Your task to perform on an android device: What's on the menu at Subway? Image 0: 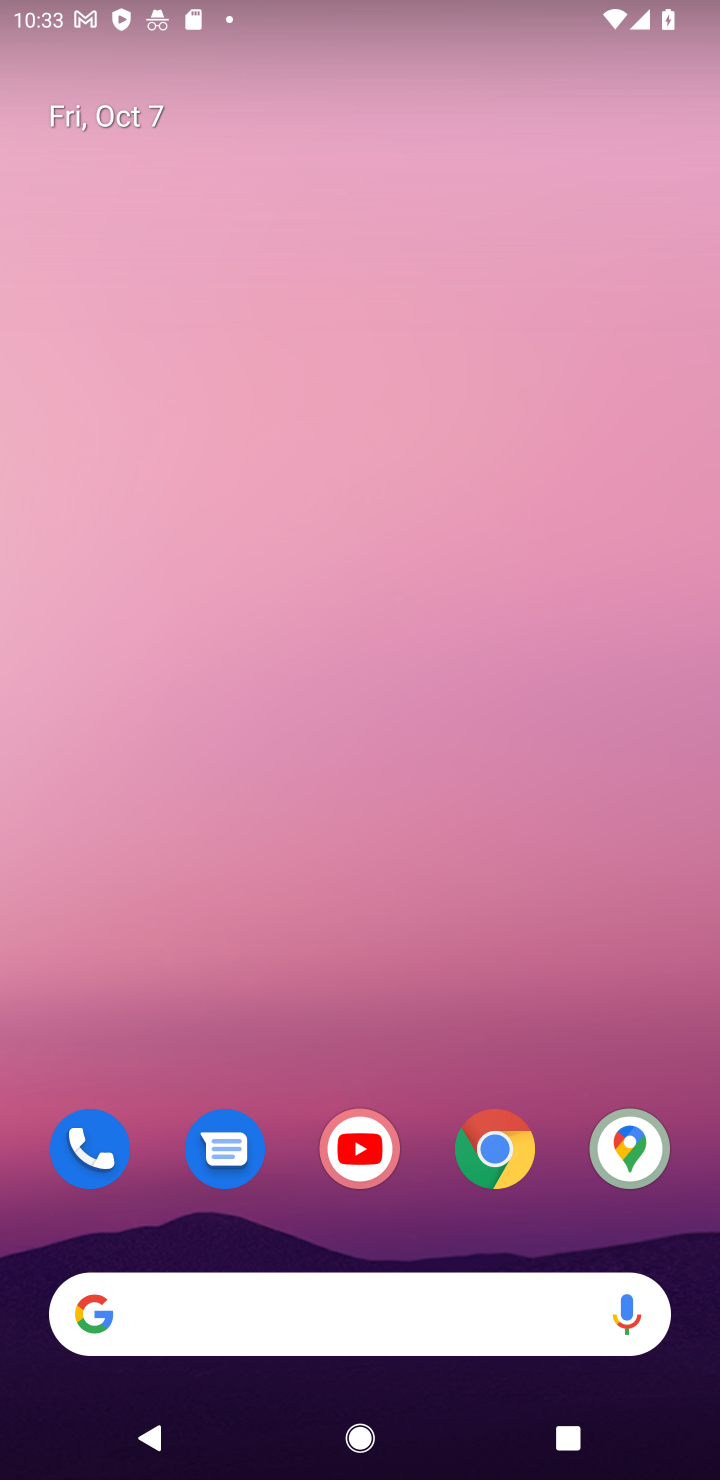
Step 0: click (404, 1293)
Your task to perform on an android device: What's on the menu at Subway? Image 1: 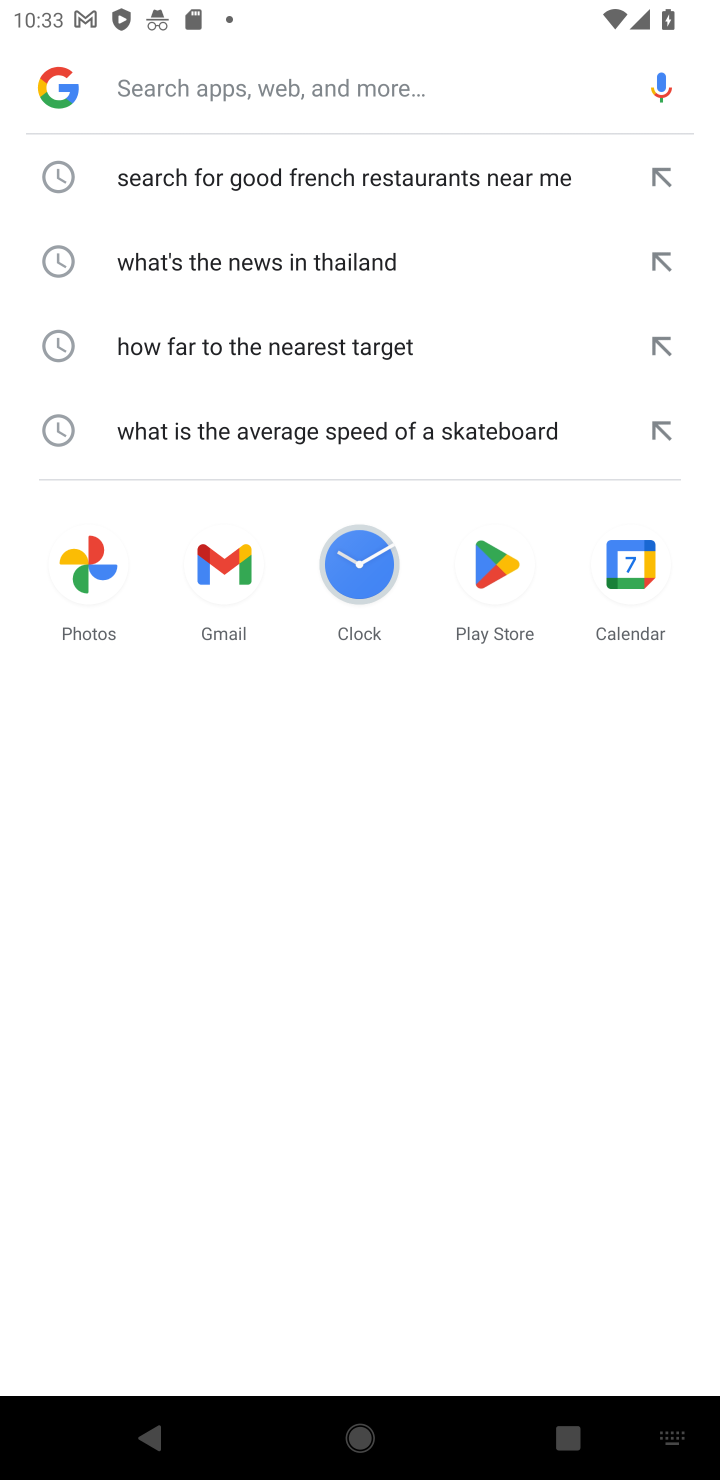
Step 1: type "What's on the menu at Subway?"
Your task to perform on an android device: What's on the menu at Subway? Image 2: 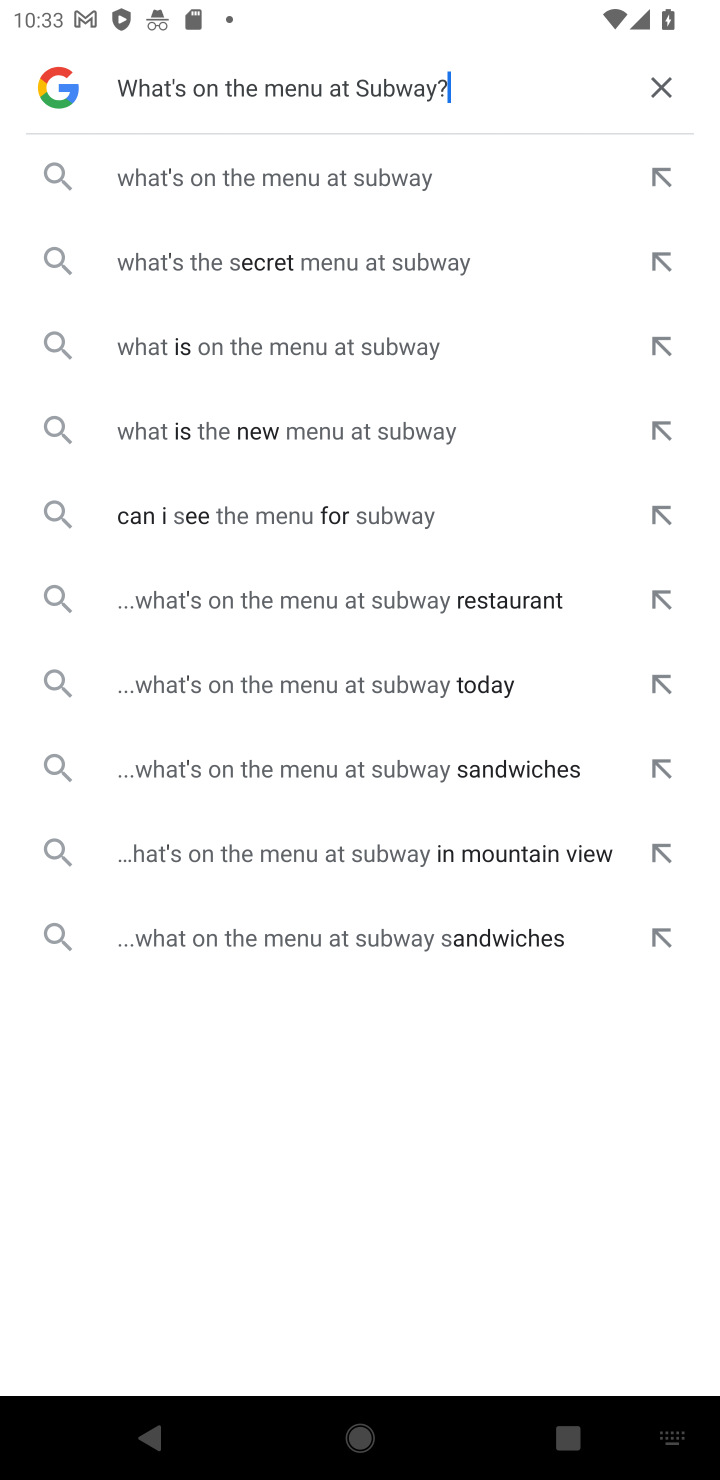
Step 2: click (498, 156)
Your task to perform on an android device: What's on the menu at Subway? Image 3: 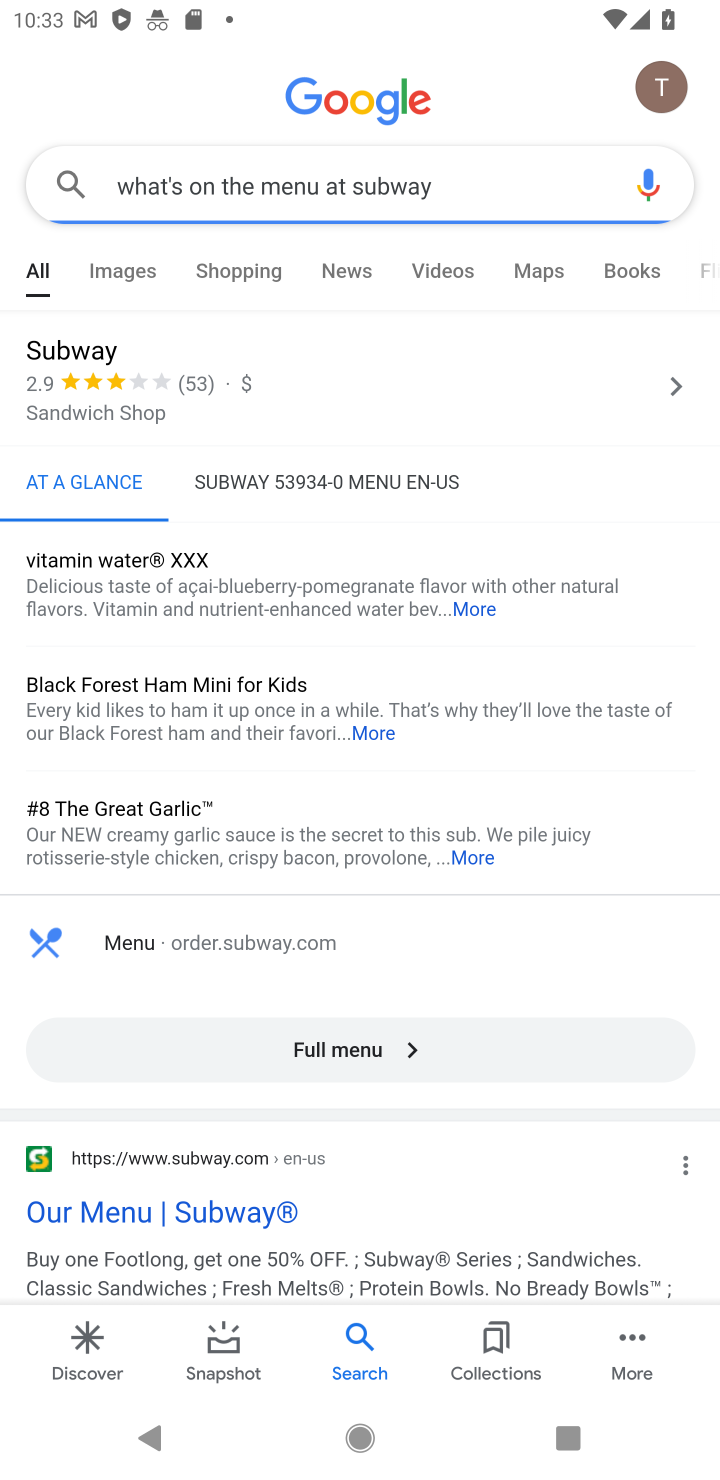
Step 3: task complete